Your task to perform on an android device: stop showing notifications on the lock screen Image 0: 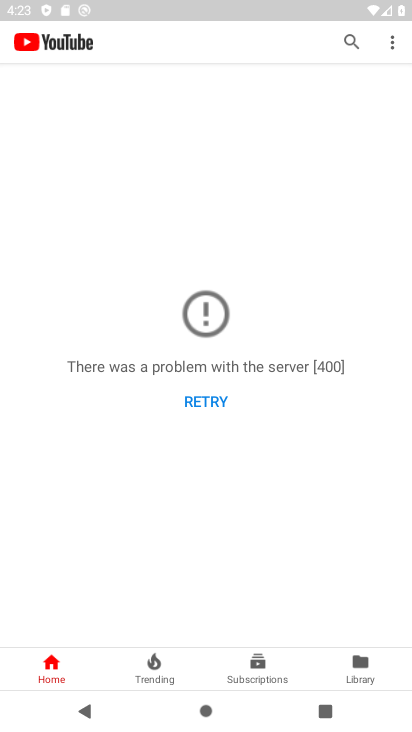
Step 0: press home button
Your task to perform on an android device: stop showing notifications on the lock screen Image 1: 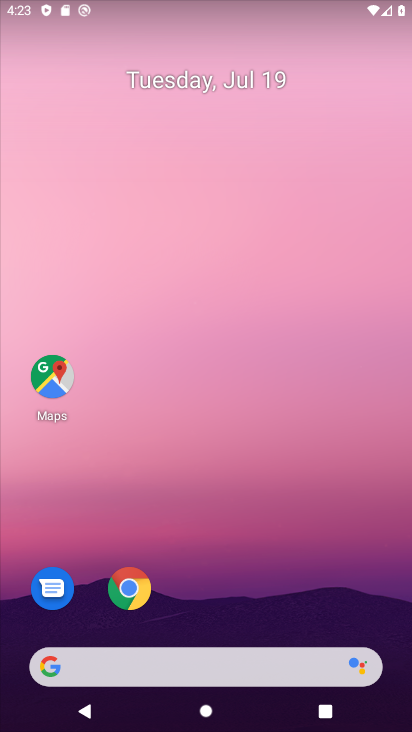
Step 1: drag from (300, 644) to (291, 317)
Your task to perform on an android device: stop showing notifications on the lock screen Image 2: 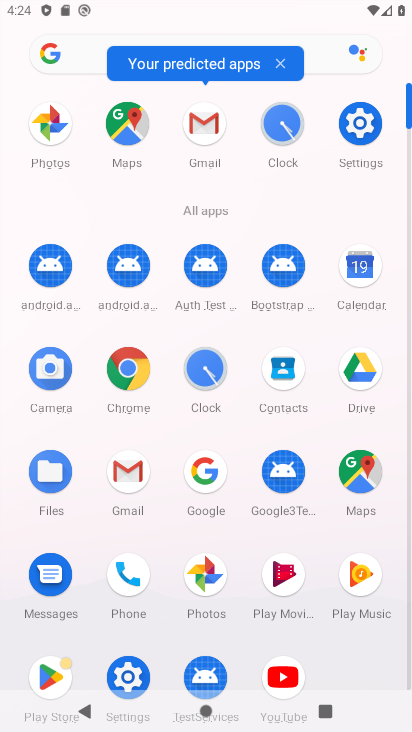
Step 2: click (134, 662)
Your task to perform on an android device: stop showing notifications on the lock screen Image 3: 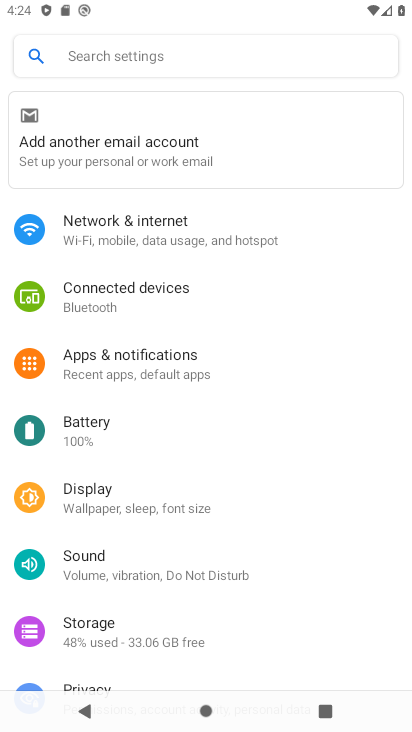
Step 3: click (147, 369)
Your task to perform on an android device: stop showing notifications on the lock screen Image 4: 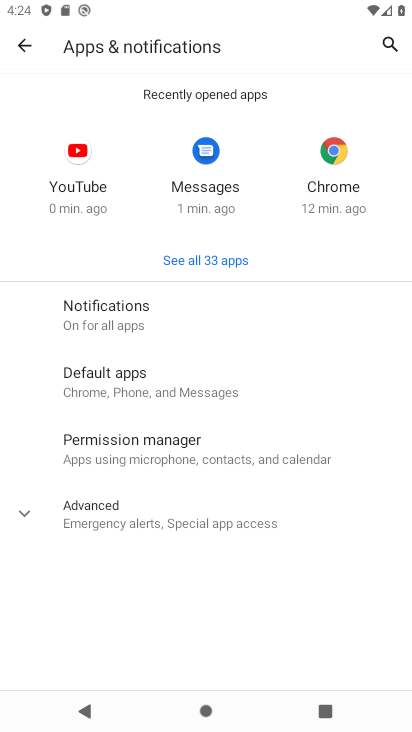
Step 4: click (187, 323)
Your task to perform on an android device: stop showing notifications on the lock screen Image 5: 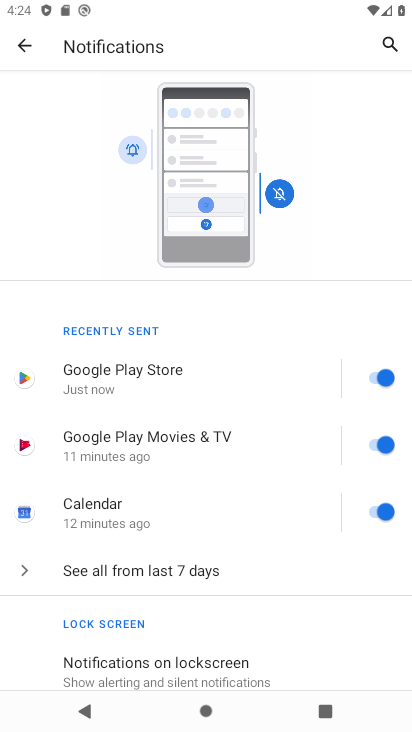
Step 5: click (206, 660)
Your task to perform on an android device: stop showing notifications on the lock screen Image 6: 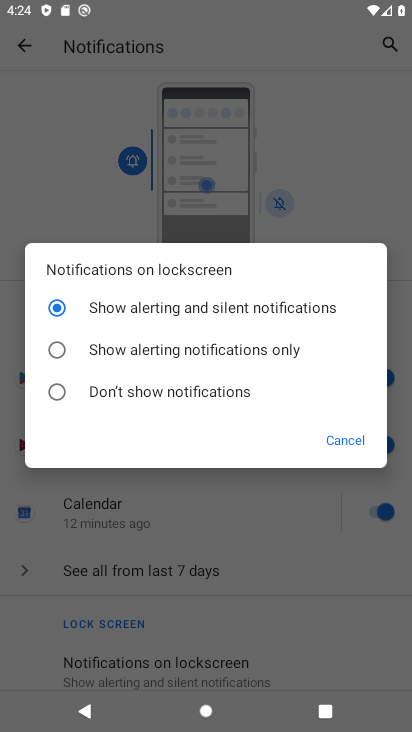
Step 6: click (221, 393)
Your task to perform on an android device: stop showing notifications on the lock screen Image 7: 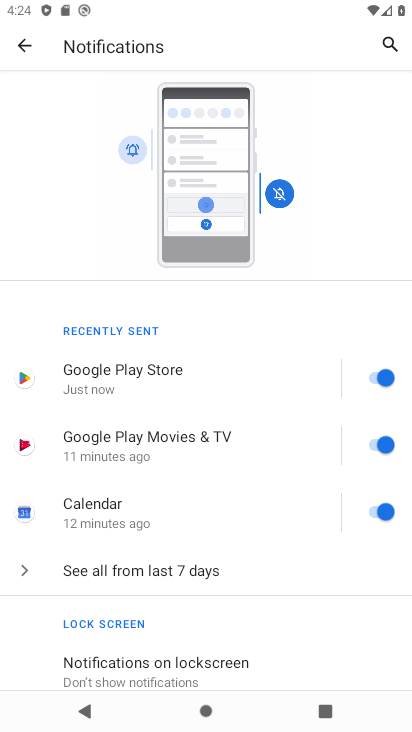
Step 7: click (196, 655)
Your task to perform on an android device: stop showing notifications on the lock screen Image 8: 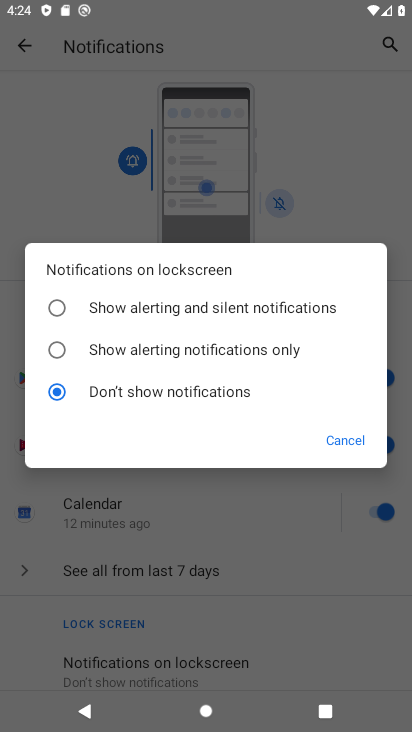
Step 8: task complete